Your task to perform on an android device: Clear the cart on walmart. Add asus rog to the cart on walmart, then select checkout. Image 0: 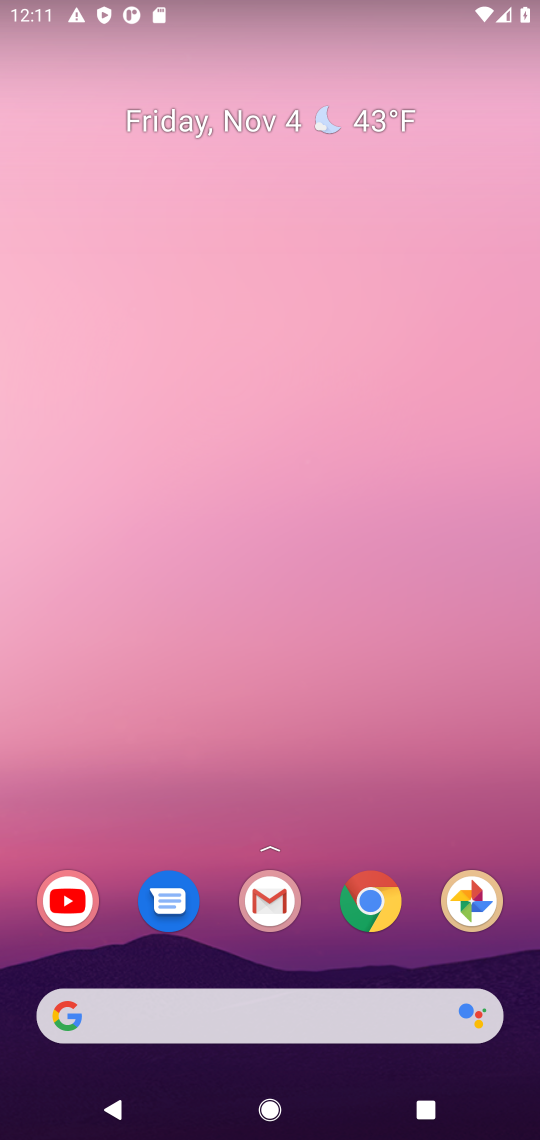
Step 0: click (383, 890)
Your task to perform on an android device: Clear the cart on walmart. Add asus rog to the cart on walmart, then select checkout. Image 1: 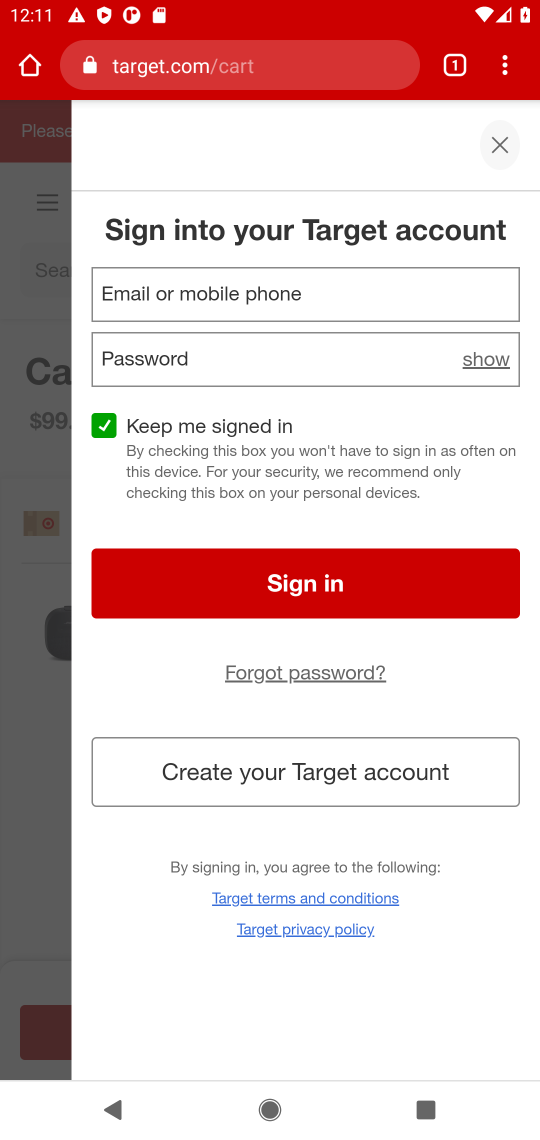
Step 1: click (497, 145)
Your task to perform on an android device: Clear the cart on walmart. Add asus rog to the cart on walmart, then select checkout. Image 2: 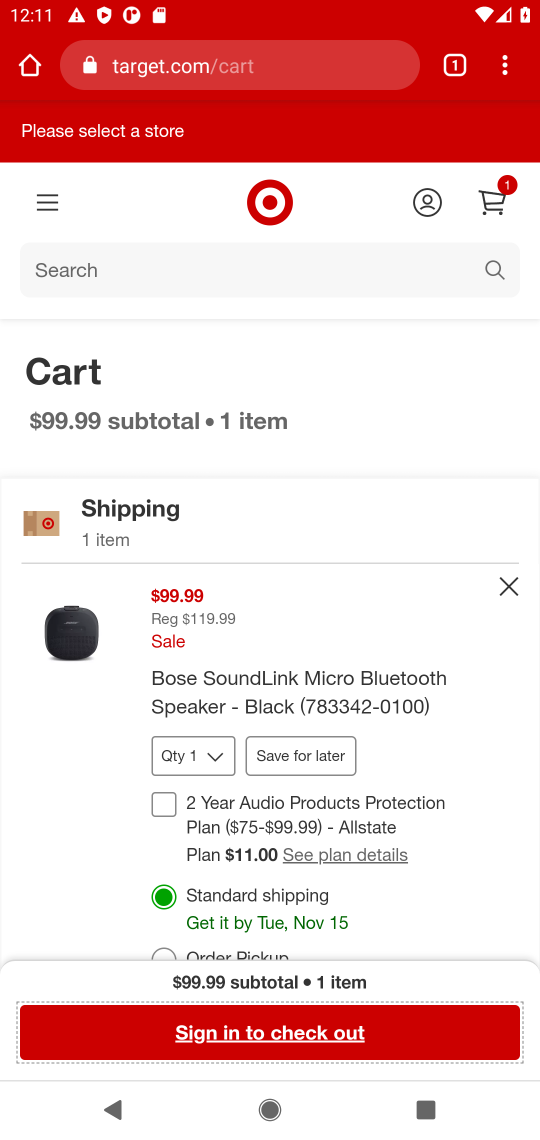
Step 2: click (320, 69)
Your task to perform on an android device: Clear the cart on walmart. Add asus rog to the cart on walmart, then select checkout. Image 3: 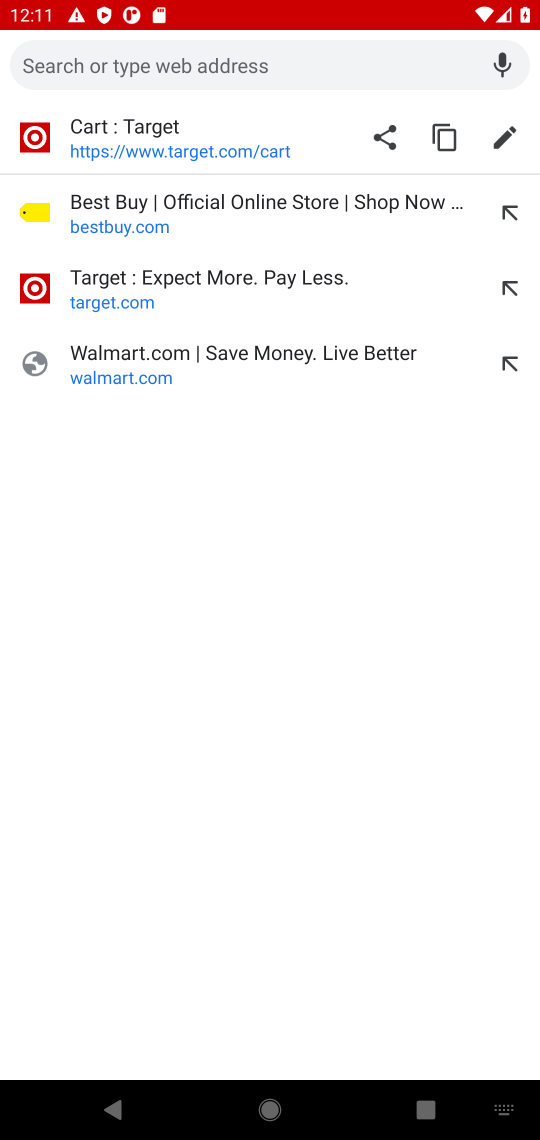
Step 3: click (161, 350)
Your task to perform on an android device: Clear the cart on walmart. Add asus rog to the cart on walmart, then select checkout. Image 4: 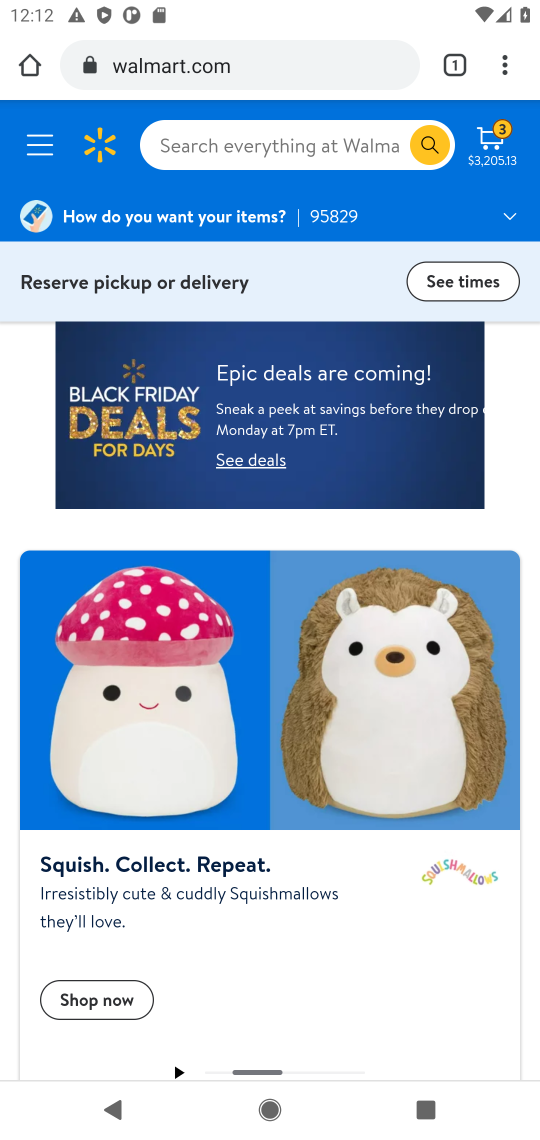
Step 4: click (273, 145)
Your task to perform on an android device: Clear the cart on walmart. Add asus rog to the cart on walmart, then select checkout. Image 5: 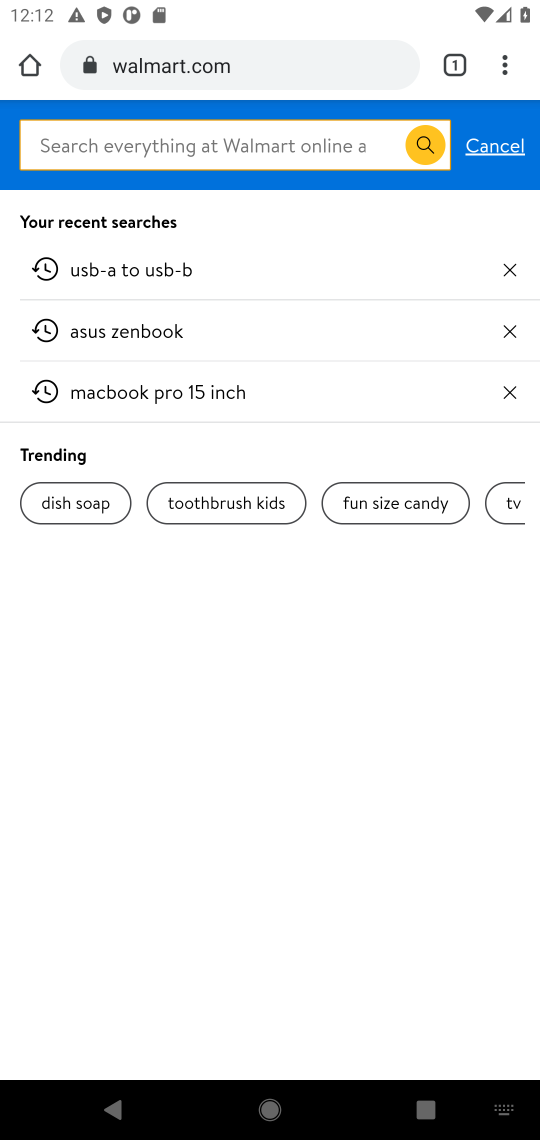
Step 5: type "asus rog"
Your task to perform on an android device: Clear the cart on walmart. Add asus rog to the cart on walmart, then select checkout. Image 6: 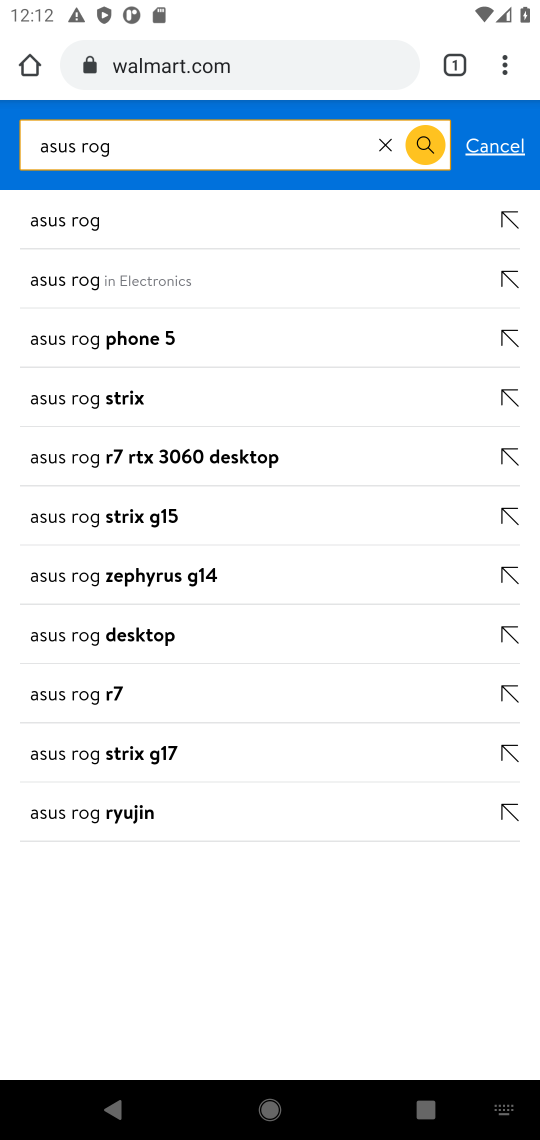
Step 6: click (73, 223)
Your task to perform on an android device: Clear the cart on walmart. Add asus rog to the cart on walmart, then select checkout. Image 7: 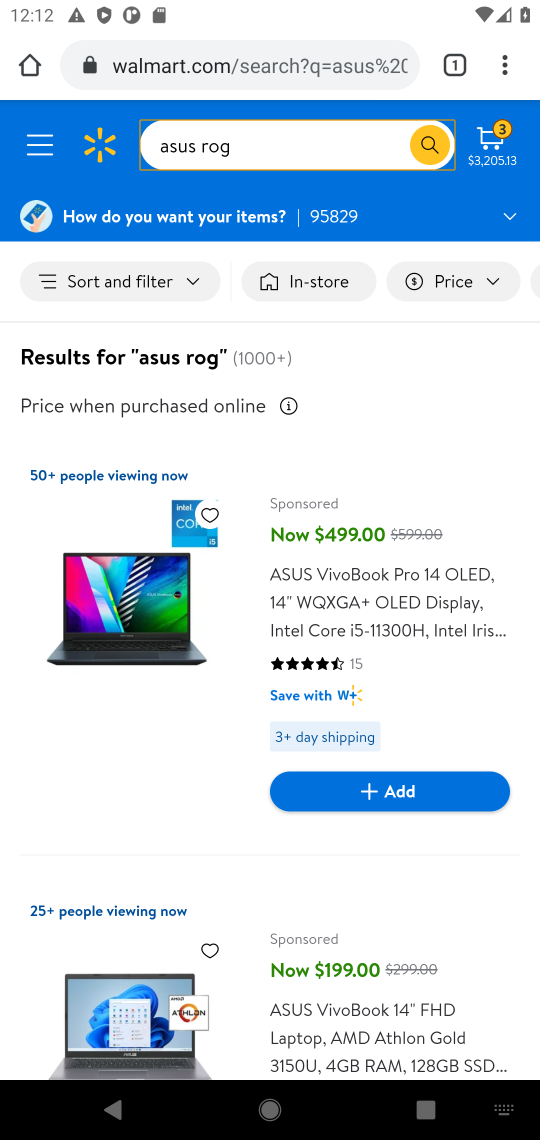
Step 7: drag from (436, 960) to (402, 576)
Your task to perform on an android device: Clear the cart on walmart. Add asus rog to the cart on walmart, then select checkout. Image 8: 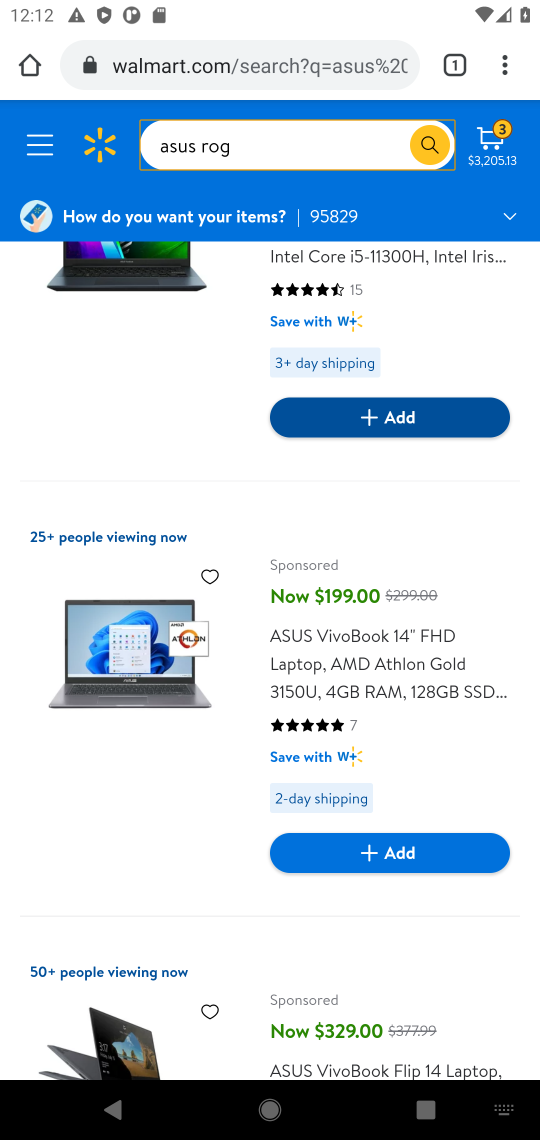
Step 8: drag from (443, 996) to (419, 570)
Your task to perform on an android device: Clear the cart on walmart. Add asus rog to the cart on walmart, then select checkout. Image 9: 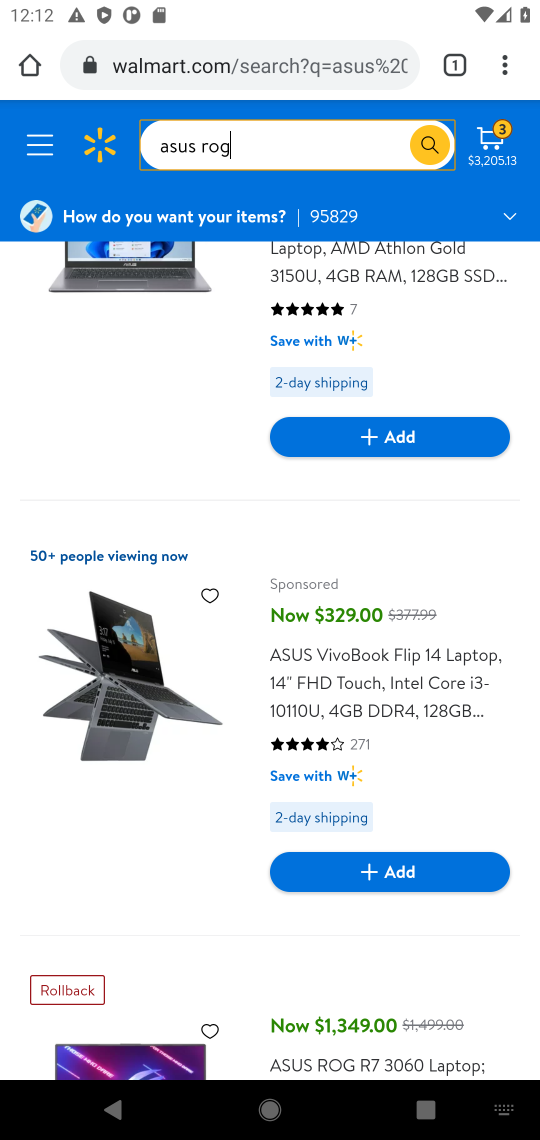
Step 9: drag from (467, 985) to (416, 489)
Your task to perform on an android device: Clear the cart on walmart. Add asus rog to the cart on walmart, then select checkout. Image 10: 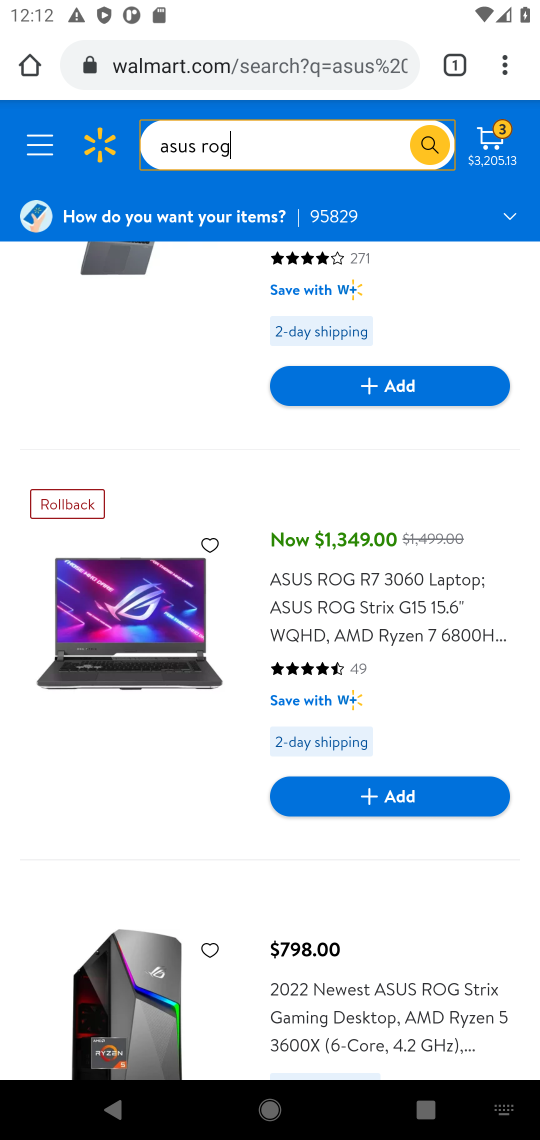
Step 10: click (115, 598)
Your task to perform on an android device: Clear the cart on walmart. Add asus rog to the cart on walmart, then select checkout. Image 11: 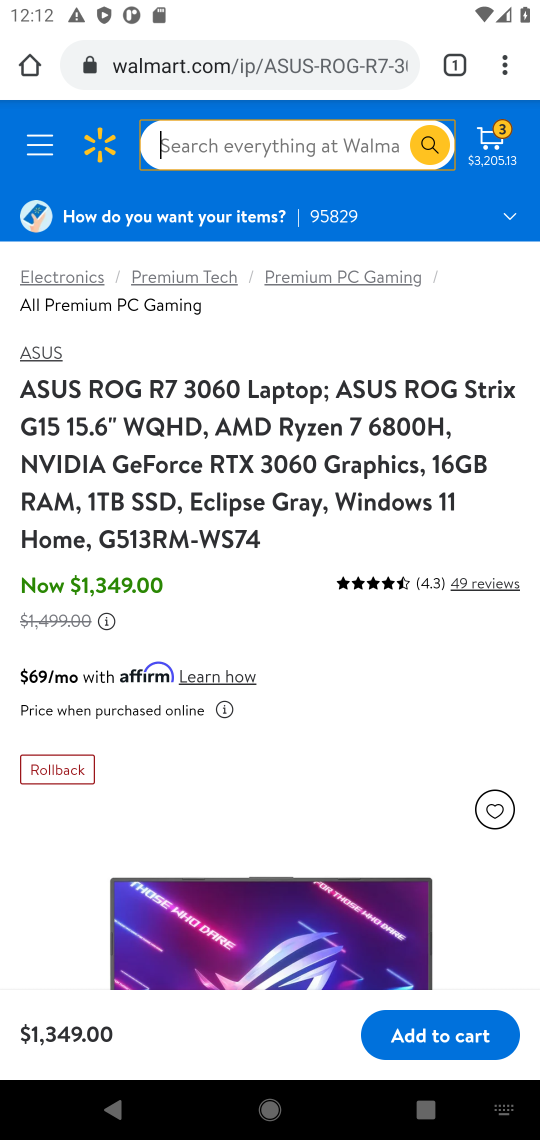
Step 11: click (461, 1030)
Your task to perform on an android device: Clear the cart on walmart. Add asus rog to the cart on walmart, then select checkout. Image 12: 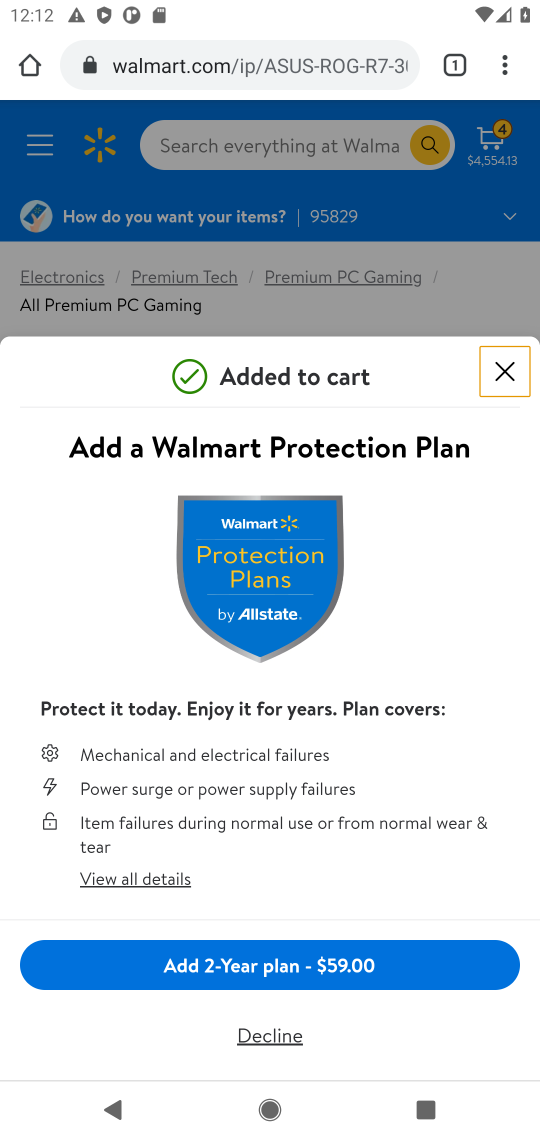
Step 12: click (513, 367)
Your task to perform on an android device: Clear the cart on walmart. Add asus rog to the cart on walmart, then select checkout. Image 13: 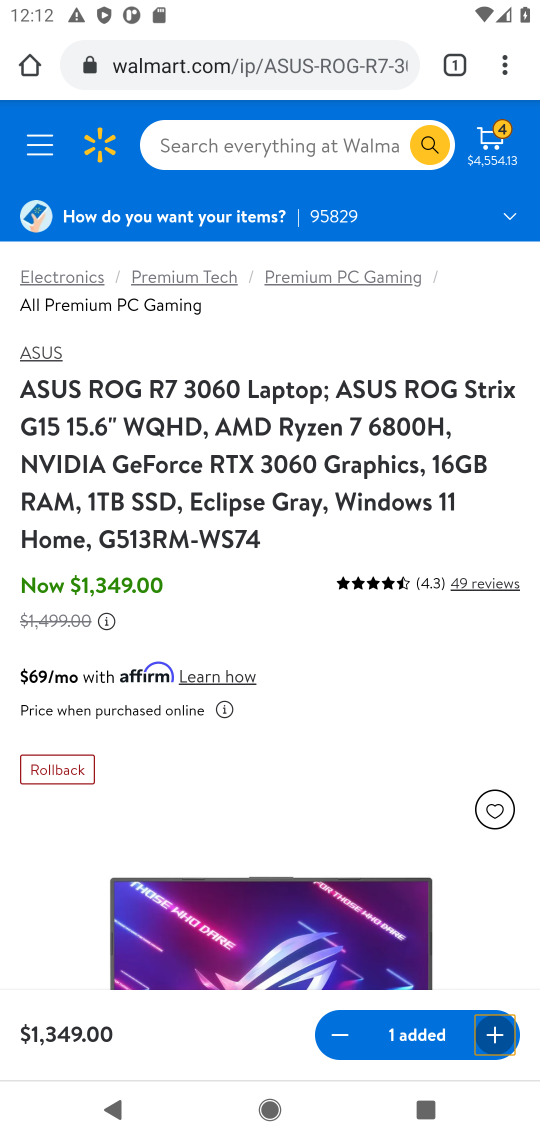
Step 13: click (486, 155)
Your task to perform on an android device: Clear the cart on walmart. Add asus rog to the cart on walmart, then select checkout. Image 14: 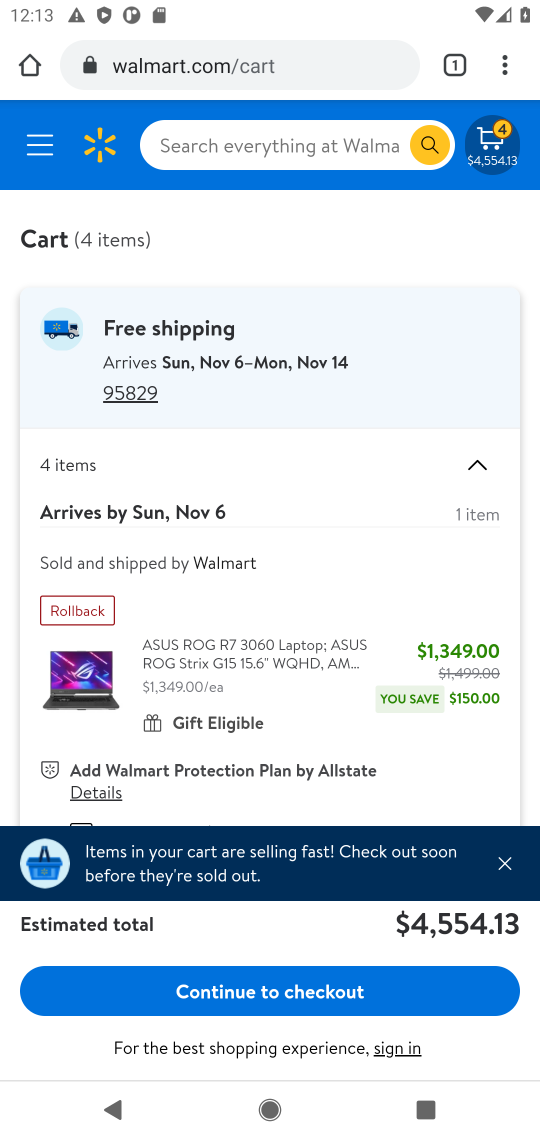
Step 14: click (256, 987)
Your task to perform on an android device: Clear the cart on walmart. Add asus rog to the cart on walmart, then select checkout. Image 15: 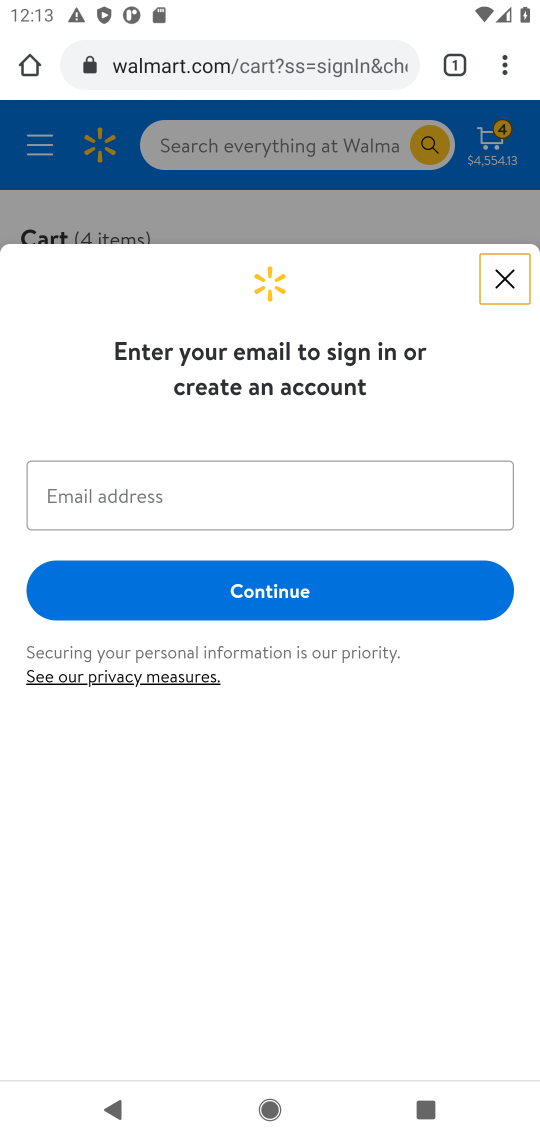
Step 15: task complete